Your task to perform on an android device: Is it going to rain tomorrow? Image 0: 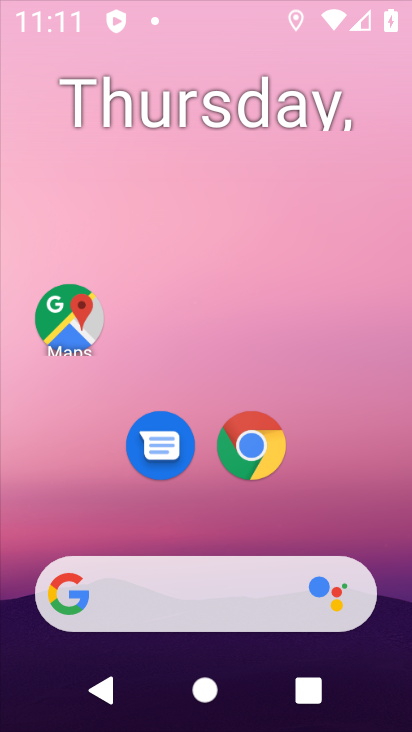
Step 0: drag from (391, 622) to (279, 38)
Your task to perform on an android device: Is it going to rain tomorrow? Image 1: 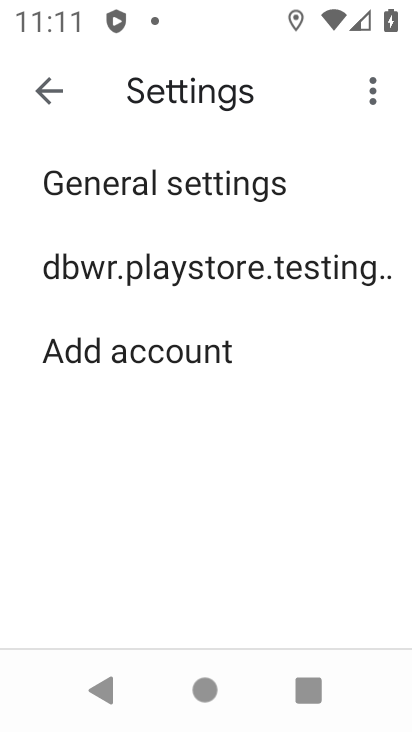
Step 1: press home button
Your task to perform on an android device: Is it going to rain tomorrow? Image 2: 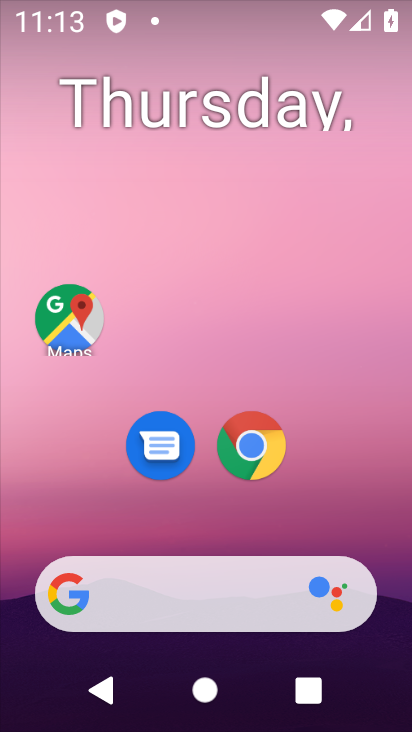
Step 2: click (195, 575)
Your task to perform on an android device: Is it going to rain tomorrow? Image 3: 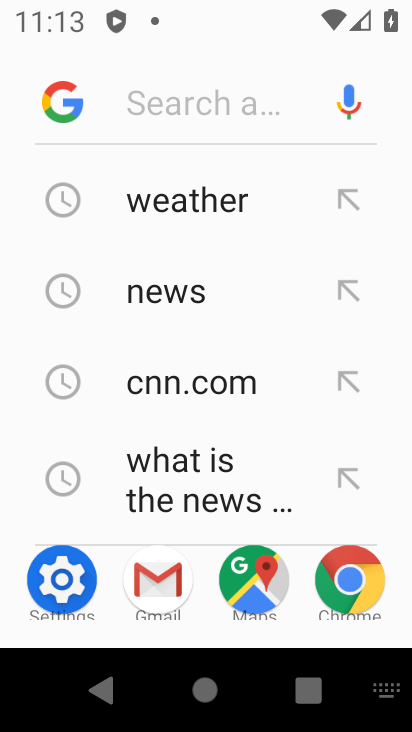
Step 3: click (174, 199)
Your task to perform on an android device: Is it going to rain tomorrow? Image 4: 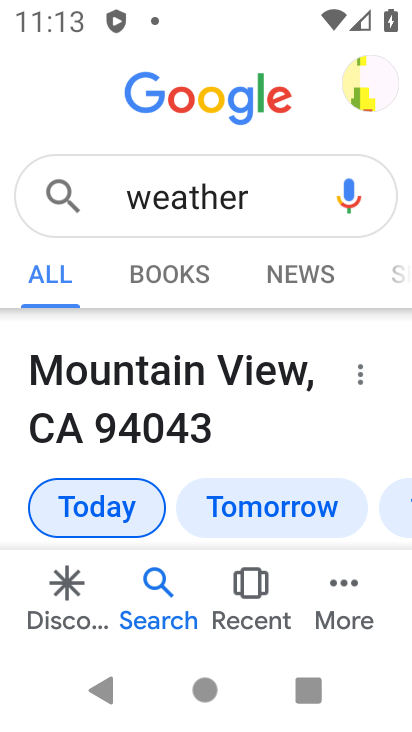
Step 4: click (274, 495)
Your task to perform on an android device: Is it going to rain tomorrow? Image 5: 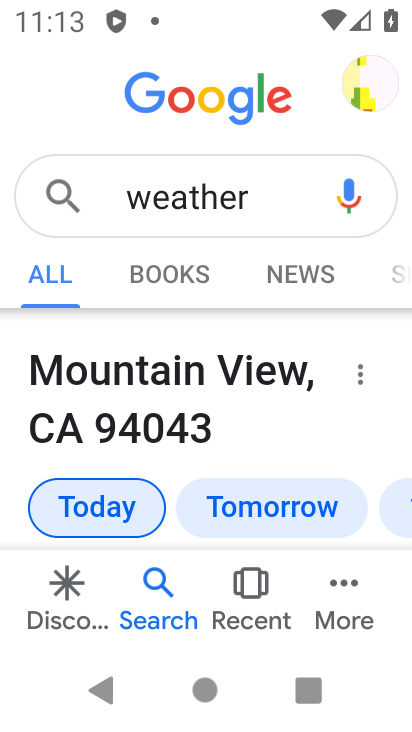
Step 5: click (281, 511)
Your task to perform on an android device: Is it going to rain tomorrow? Image 6: 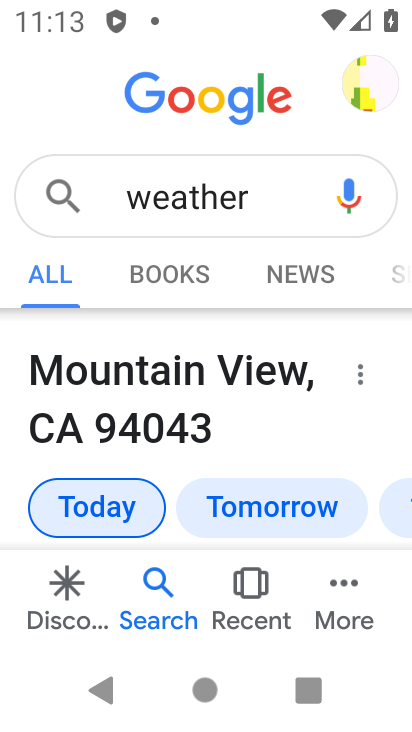
Step 6: drag from (281, 511) to (254, 55)
Your task to perform on an android device: Is it going to rain tomorrow? Image 7: 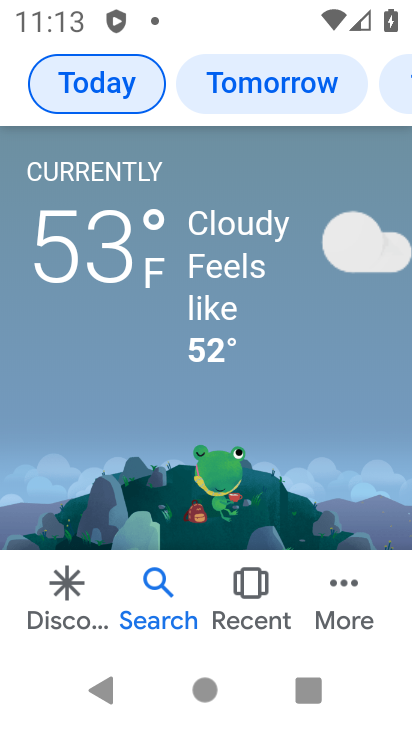
Step 7: drag from (246, 238) to (248, 460)
Your task to perform on an android device: Is it going to rain tomorrow? Image 8: 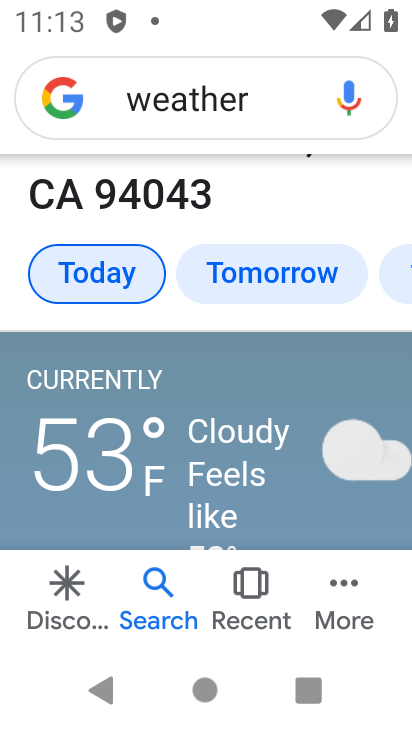
Step 8: click (276, 291)
Your task to perform on an android device: Is it going to rain tomorrow? Image 9: 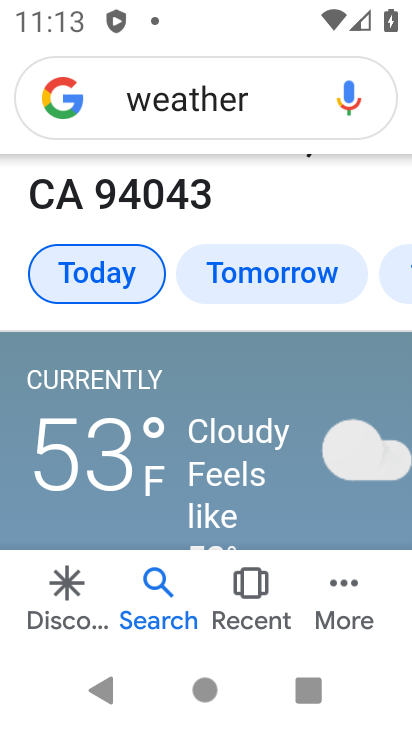
Step 9: click (276, 291)
Your task to perform on an android device: Is it going to rain tomorrow? Image 10: 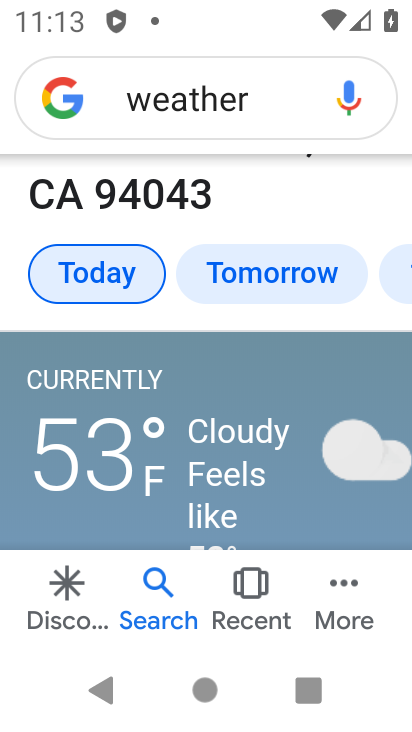
Step 10: task complete